Your task to perform on an android device: Search for pizza restaurants on Maps Image 0: 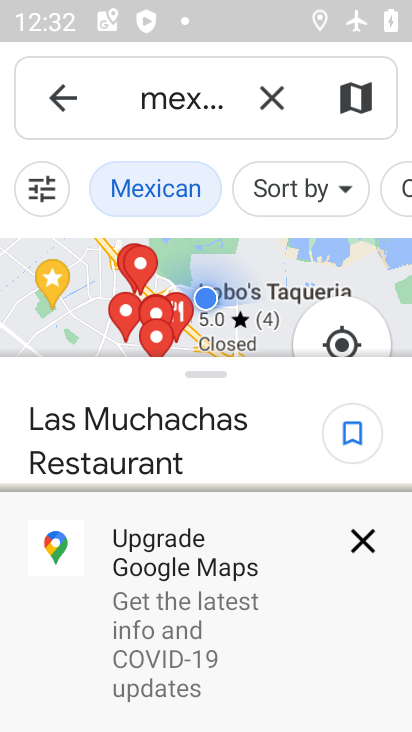
Step 0: press home button
Your task to perform on an android device: Search for pizza restaurants on Maps Image 1: 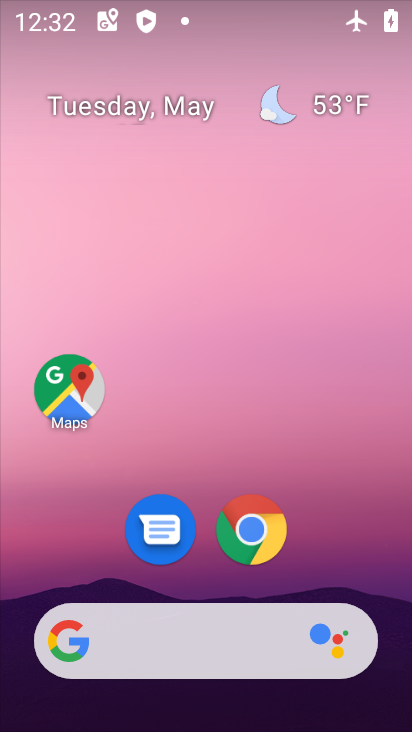
Step 1: drag from (196, 723) to (210, 83)
Your task to perform on an android device: Search for pizza restaurants on Maps Image 2: 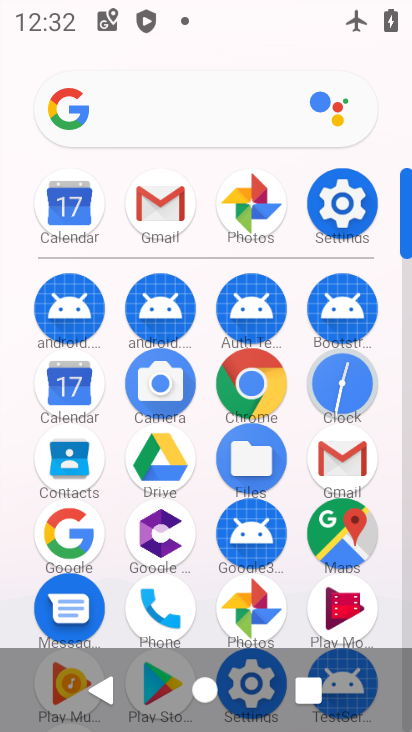
Step 2: click (336, 207)
Your task to perform on an android device: Search for pizza restaurants on Maps Image 3: 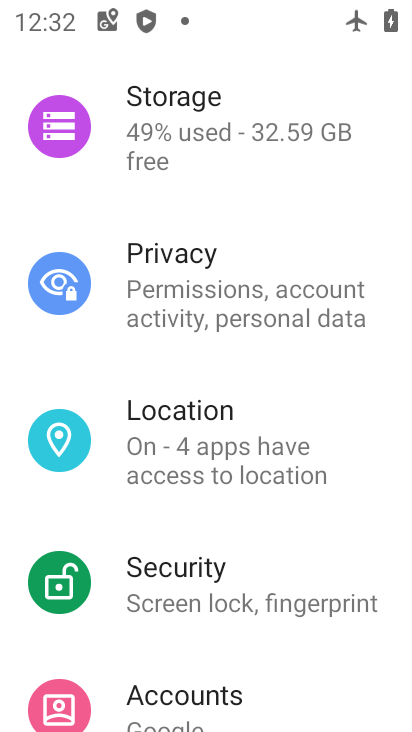
Step 3: drag from (200, 189) to (203, 588)
Your task to perform on an android device: Search for pizza restaurants on Maps Image 4: 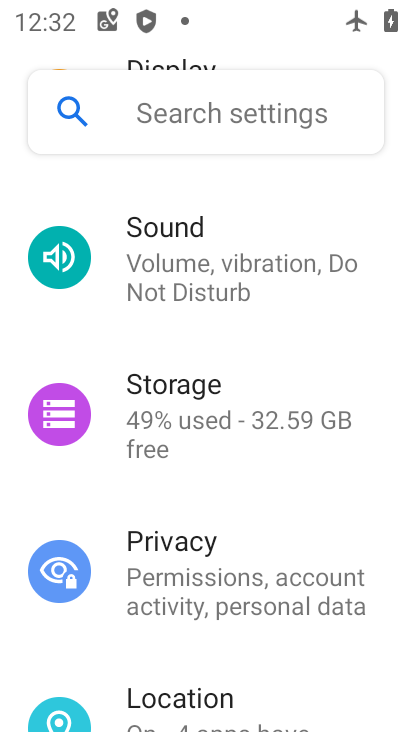
Step 4: drag from (219, 218) to (203, 578)
Your task to perform on an android device: Search for pizza restaurants on Maps Image 5: 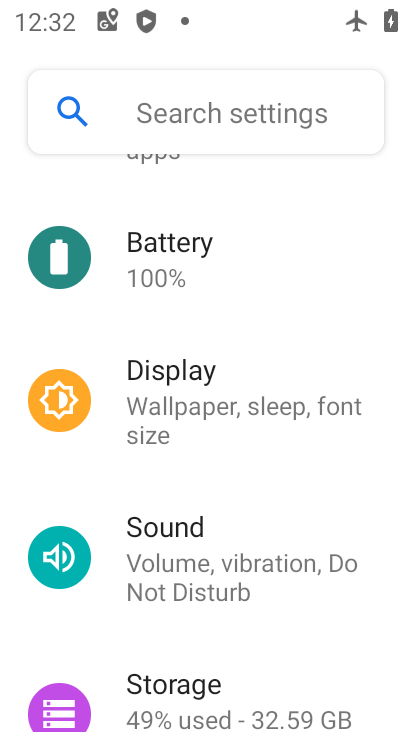
Step 5: drag from (195, 302) to (200, 662)
Your task to perform on an android device: Search for pizza restaurants on Maps Image 6: 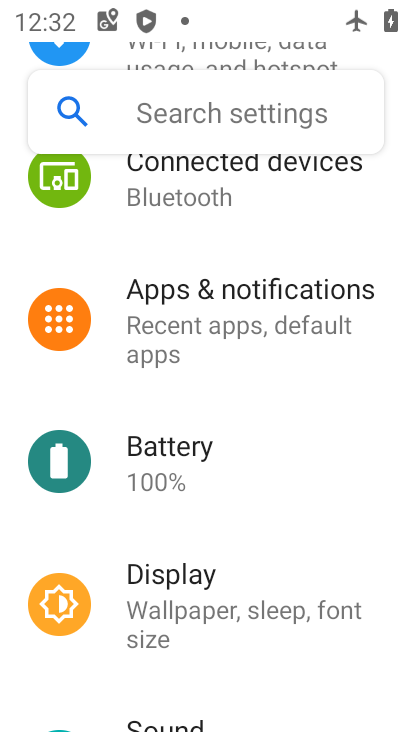
Step 6: drag from (195, 216) to (197, 609)
Your task to perform on an android device: Search for pizza restaurants on Maps Image 7: 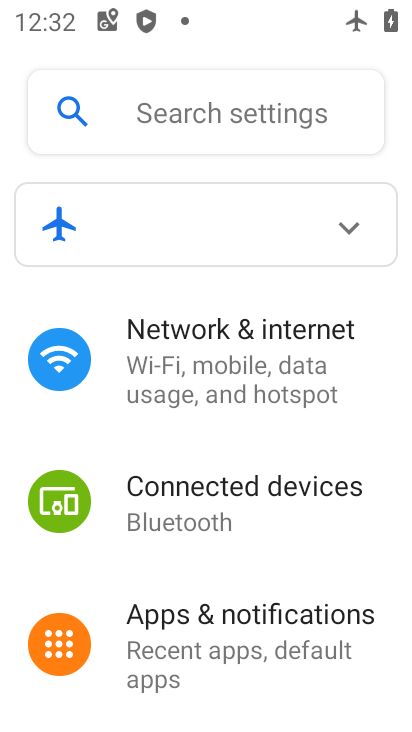
Step 7: click (166, 363)
Your task to perform on an android device: Search for pizza restaurants on Maps Image 8: 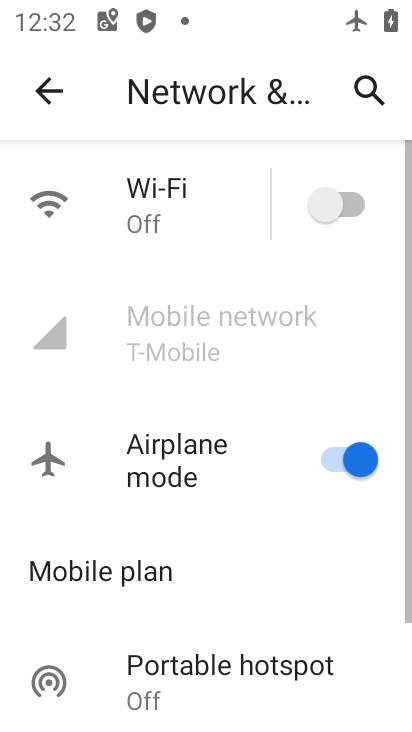
Step 8: click (329, 460)
Your task to perform on an android device: Search for pizza restaurants on Maps Image 9: 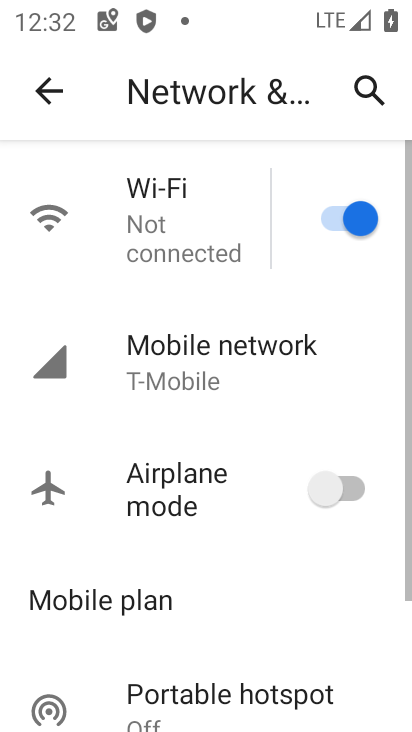
Step 9: press home button
Your task to perform on an android device: Search for pizza restaurants on Maps Image 10: 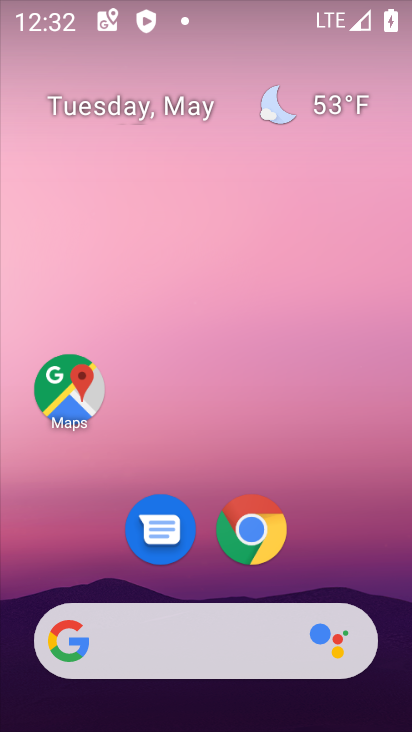
Step 10: drag from (205, 704) to (199, 249)
Your task to perform on an android device: Search for pizza restaurants on Maps Image 11: 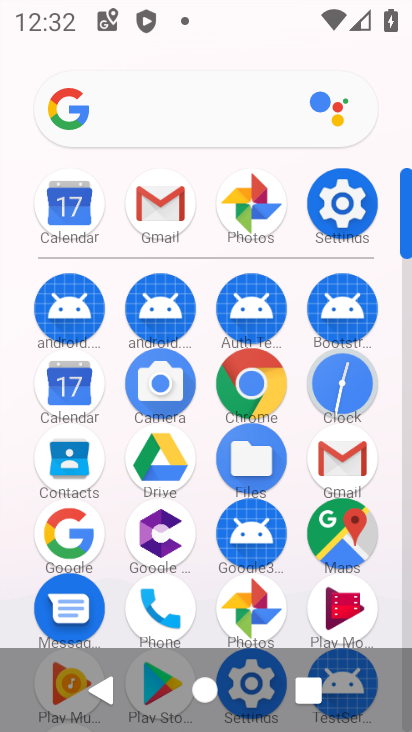
Step 11: click (345, 540)
Your task to perform on an android device: Search for pizza restaurants on Maps Image 12: 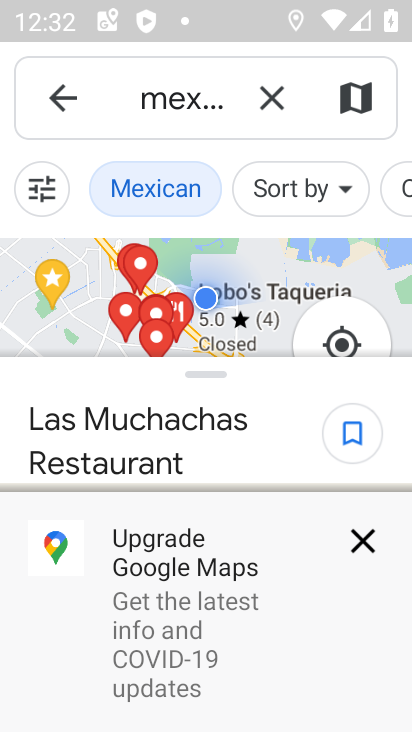
Step 12: click (267, 96)
Your task to perform on an android device: Search for pizza restaurants on Maps Image 13: 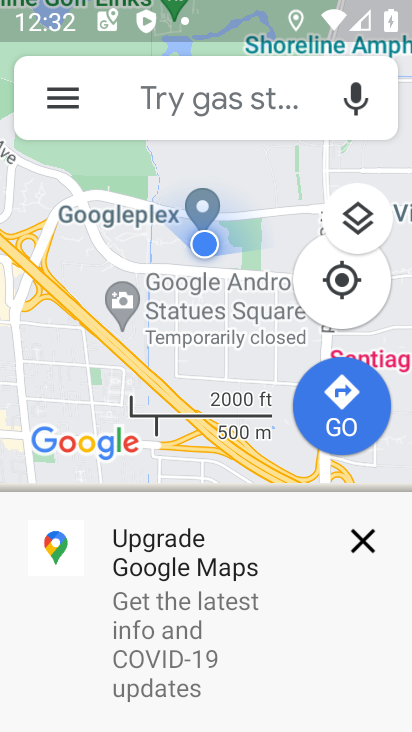
Step 13: click (163, 94)
Your task to perform on an android device: Search for pizza restaurants on Maps Image 14: 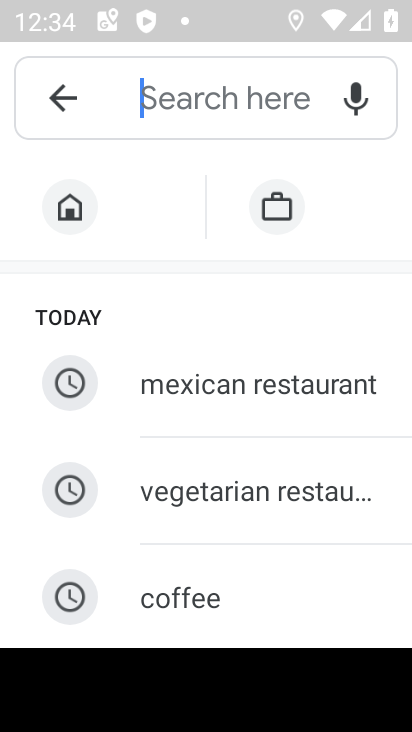
Step 14: type "Pizza restaurants"
Your task to perform on an android device: Search for pizza restaurants on Maps Image 15: 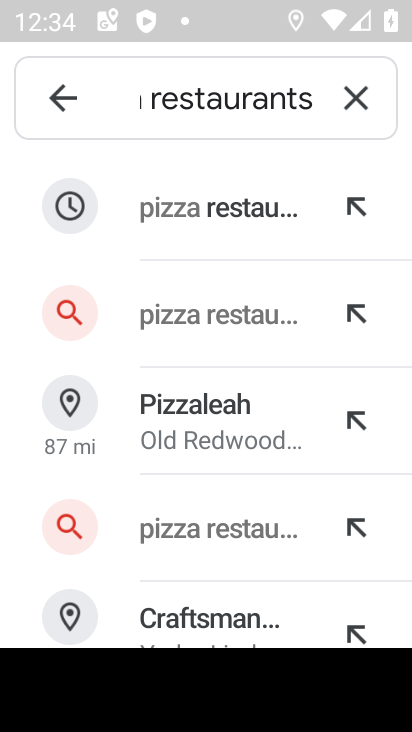
Step 15: click (208, 209)
Your task to perform on an android device: Search for pizza restaurants on Maps Image 16: 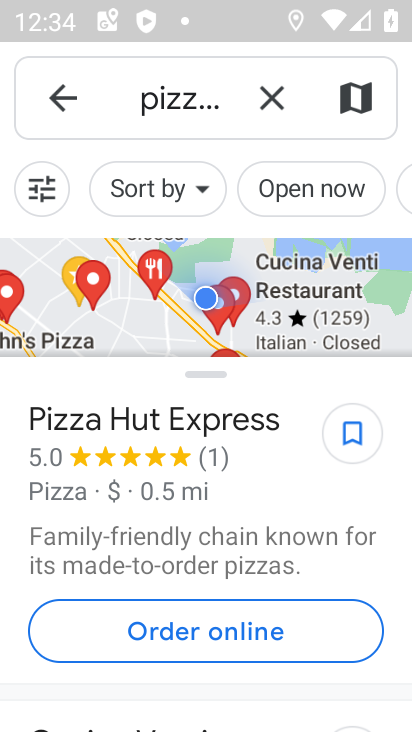
Step 16: task complete